Your task to perform on an android device: show emergency info Image 0: 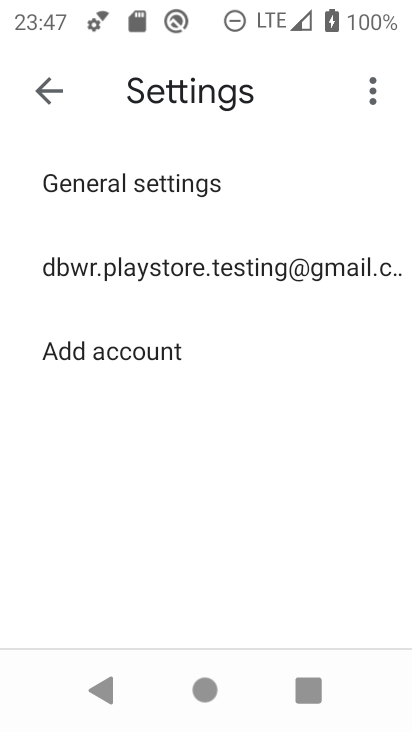
Step 0: press home button
Your task to perform on an android device: show emergency info Image 1: 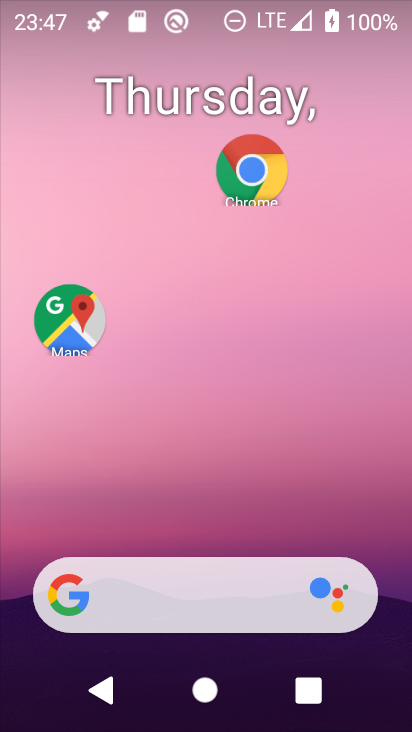
Step 1: drag from (240, 550) to (218, 157)
Your task to perform on an android device: show emergency info Image 2: 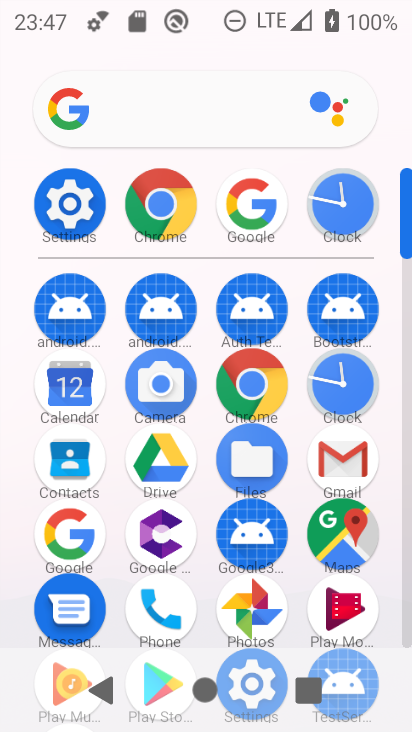
Step 2: click (58, 203)
Your task to perform on an android device: show emergency info Image 3: 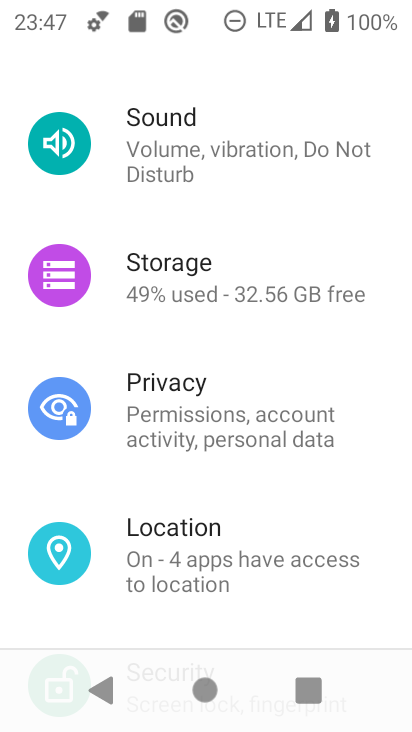
Step 3: drag from (211, 629) to (292, 297)
Your task to perform on an android device: show emergency info Image 4: 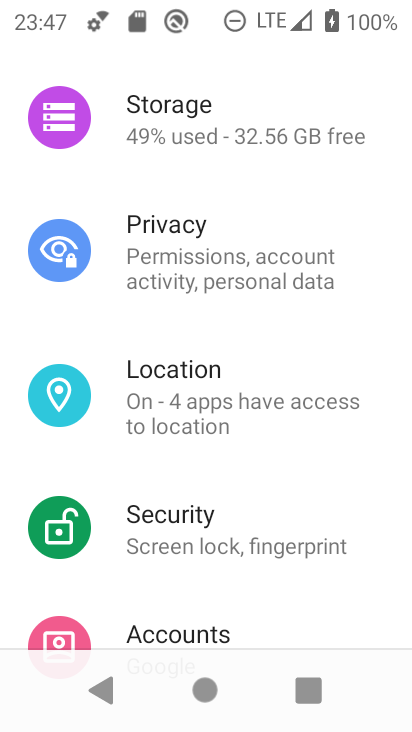
Step 4: drag from (269, 599) to (264, 271)
Your task to perform on an android device: show emergency info Image 5: 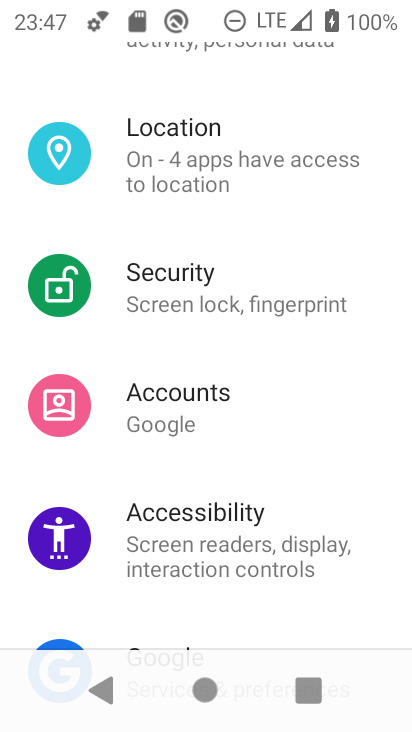
Step 5: drag from (212, 370) to (212, 286)
Your task to perform on an android device: show emergency info Image 6: 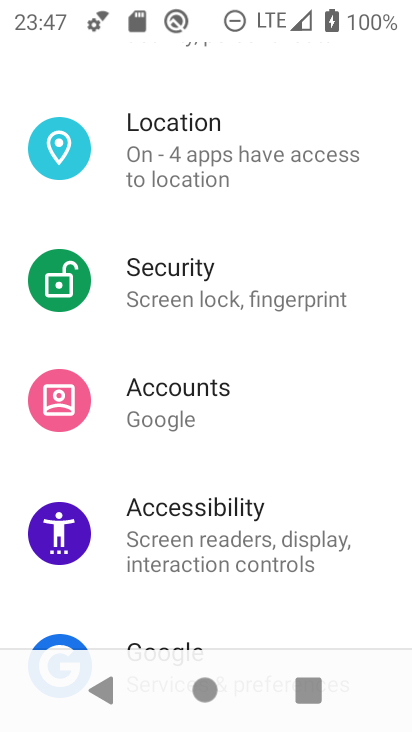
Step 6: drag from (276, 600) to (278, 252)
Your task to perform on an android device: show emergency info Image 7: 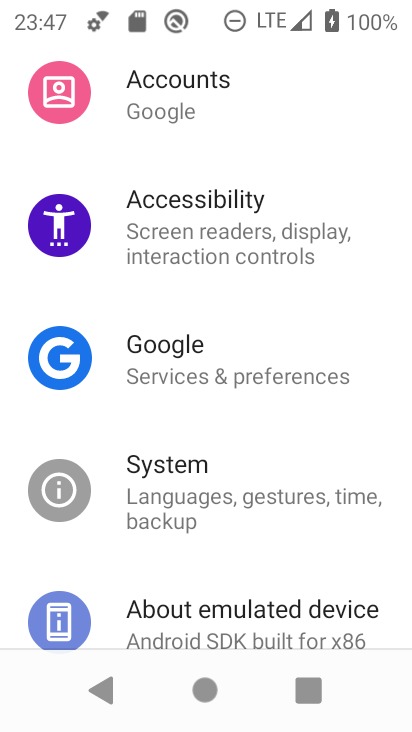
Step 7: drag from (250, 627) to (251, 329)
Your task to perform on an android device: show emergency info Image 8: 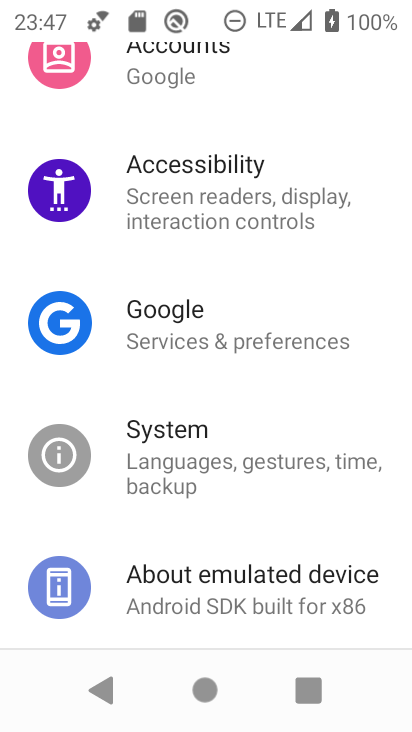
Step 8: click (203, 608)
Your task to perform on an android device: show emergency info Image 9: 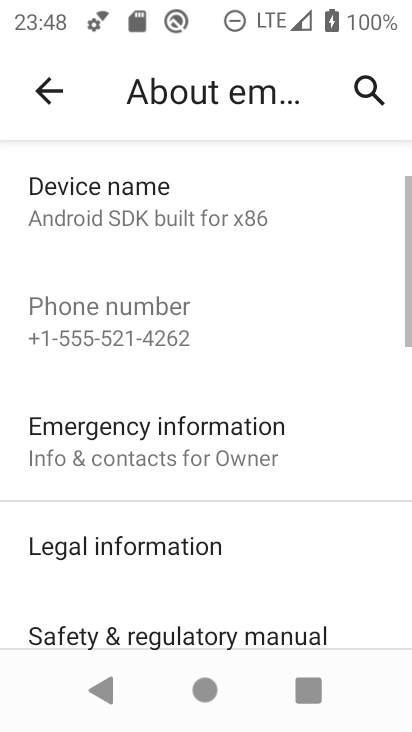
Step 9: click (187, 451)
Your task to perform on an android device: show emergency info Image 10: 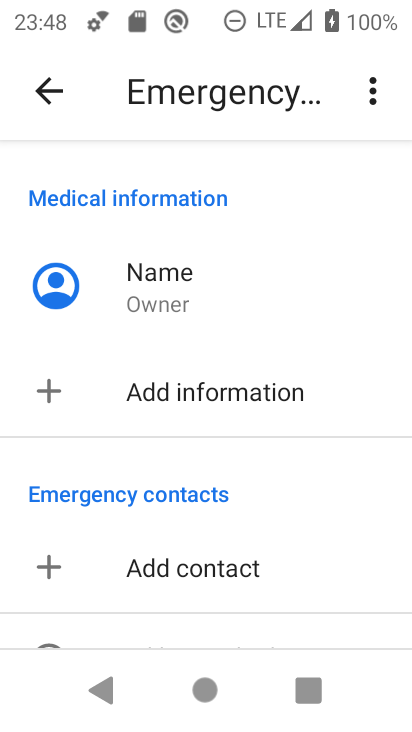
Step 10: task complete